Your task to perform on an android device: Go to location settings Image 0: 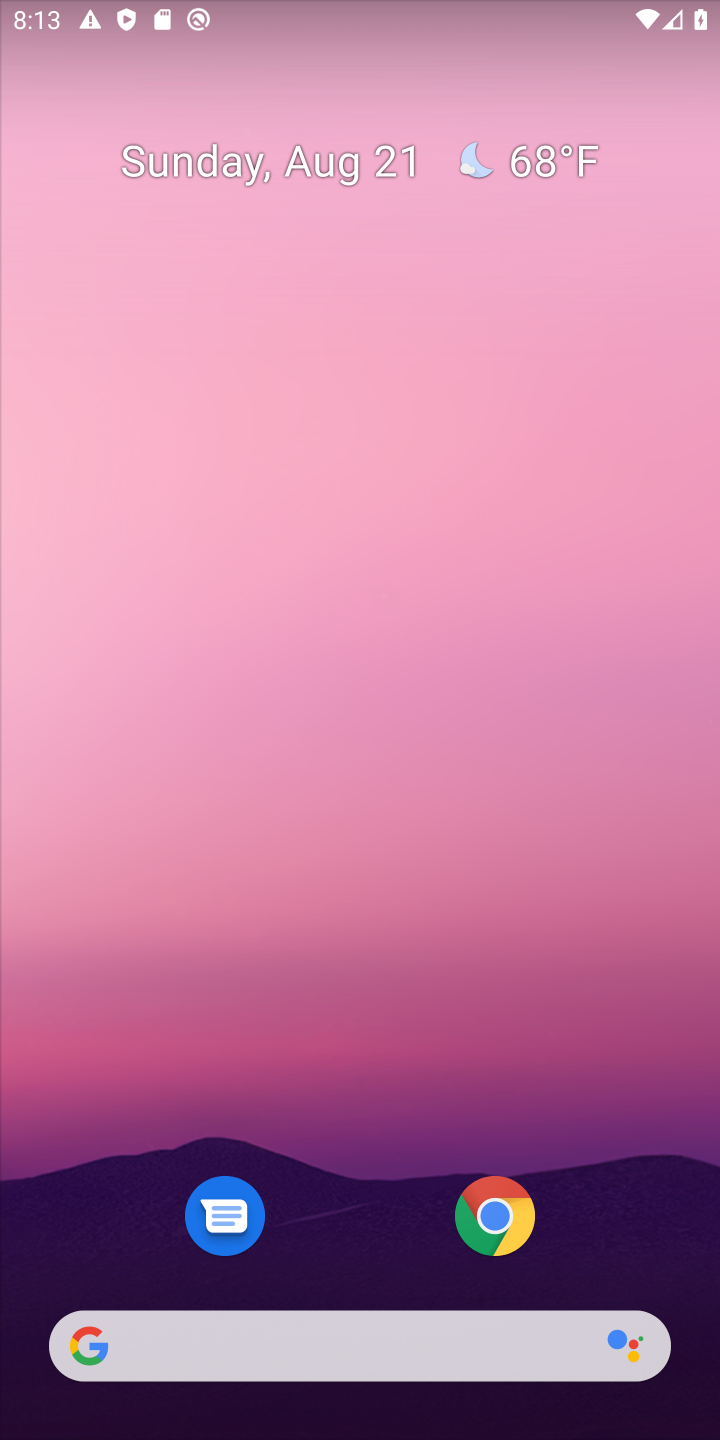
Step 0: drag from (415, 1105) to (577, 41)
Your task to perform on an android device: Go to location settings Image 1: 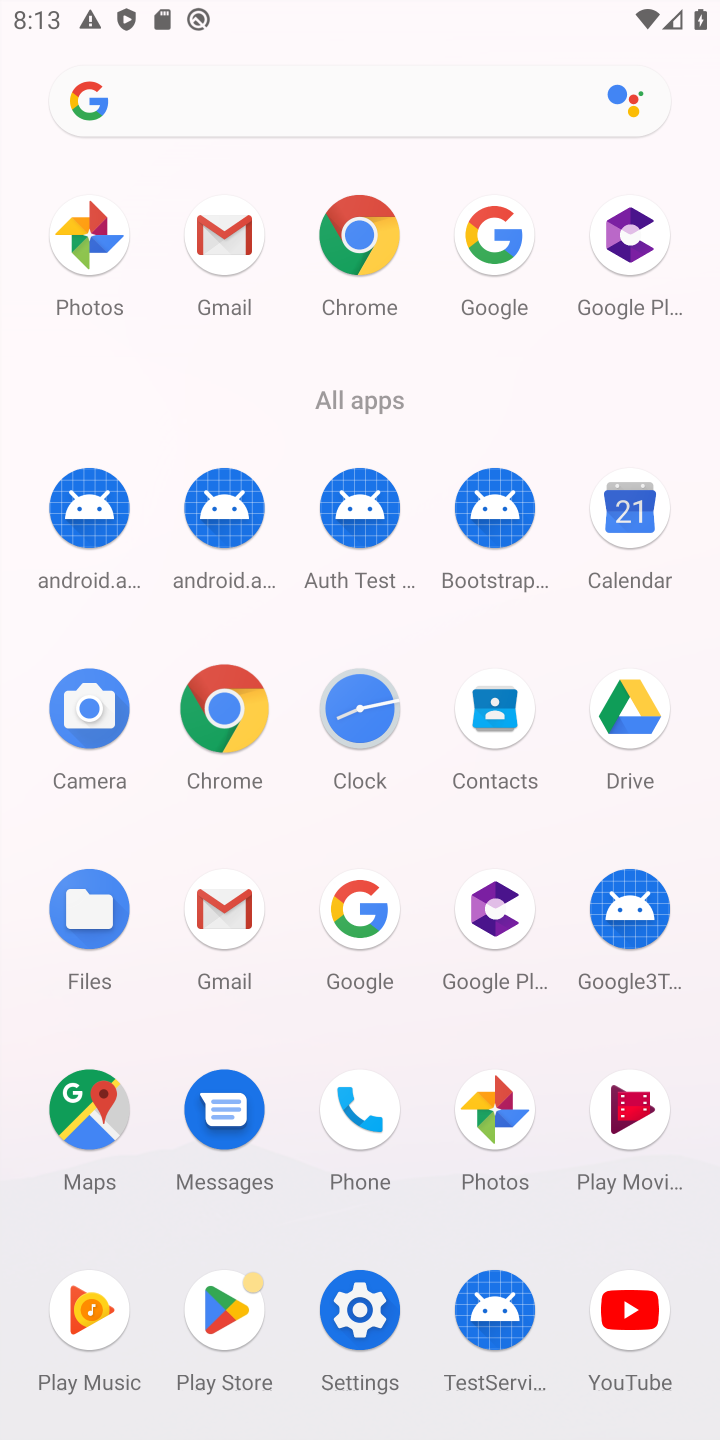
Step 1: click (372, 1316)
Your task to perform on an android device: Go to location settings Image 2: 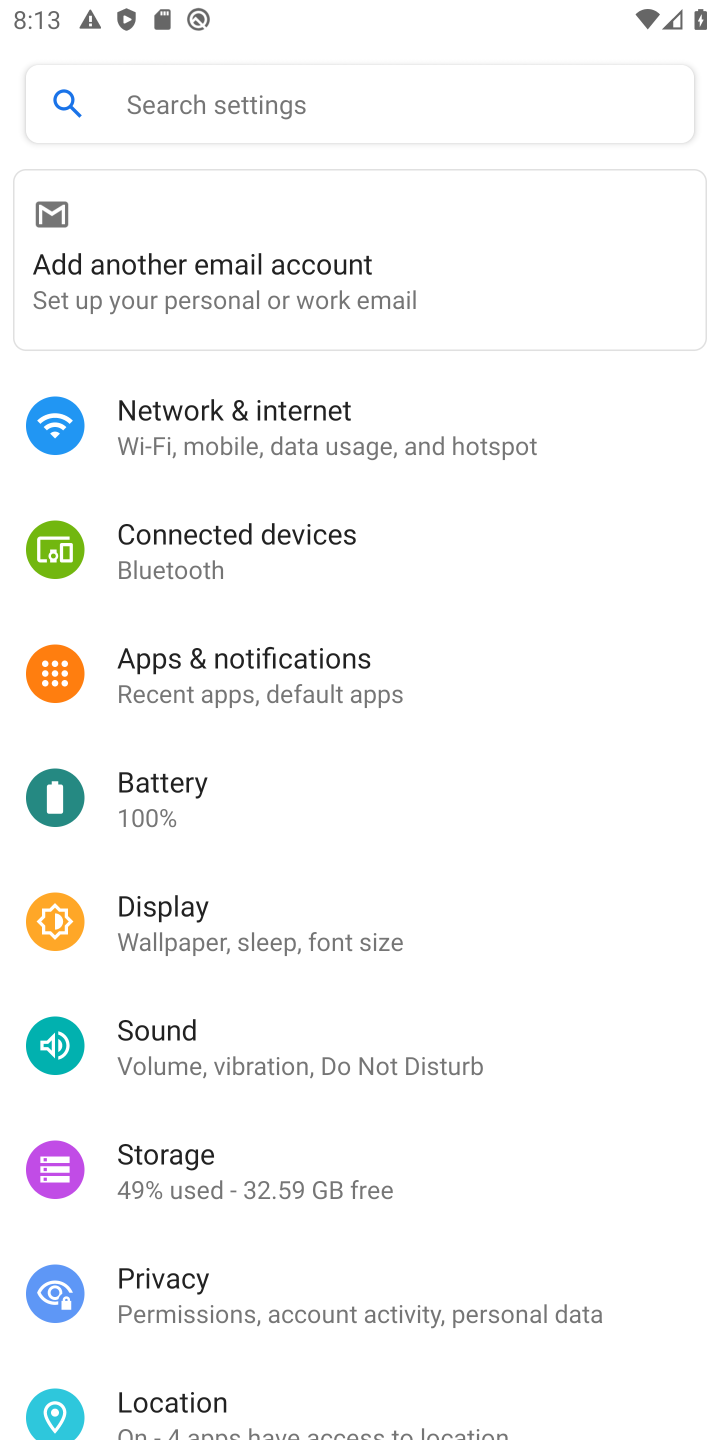
Step 2: drag from (368, 1043) to (471, 459)
Your task to perform on an android device: Go to location settings Image 3: 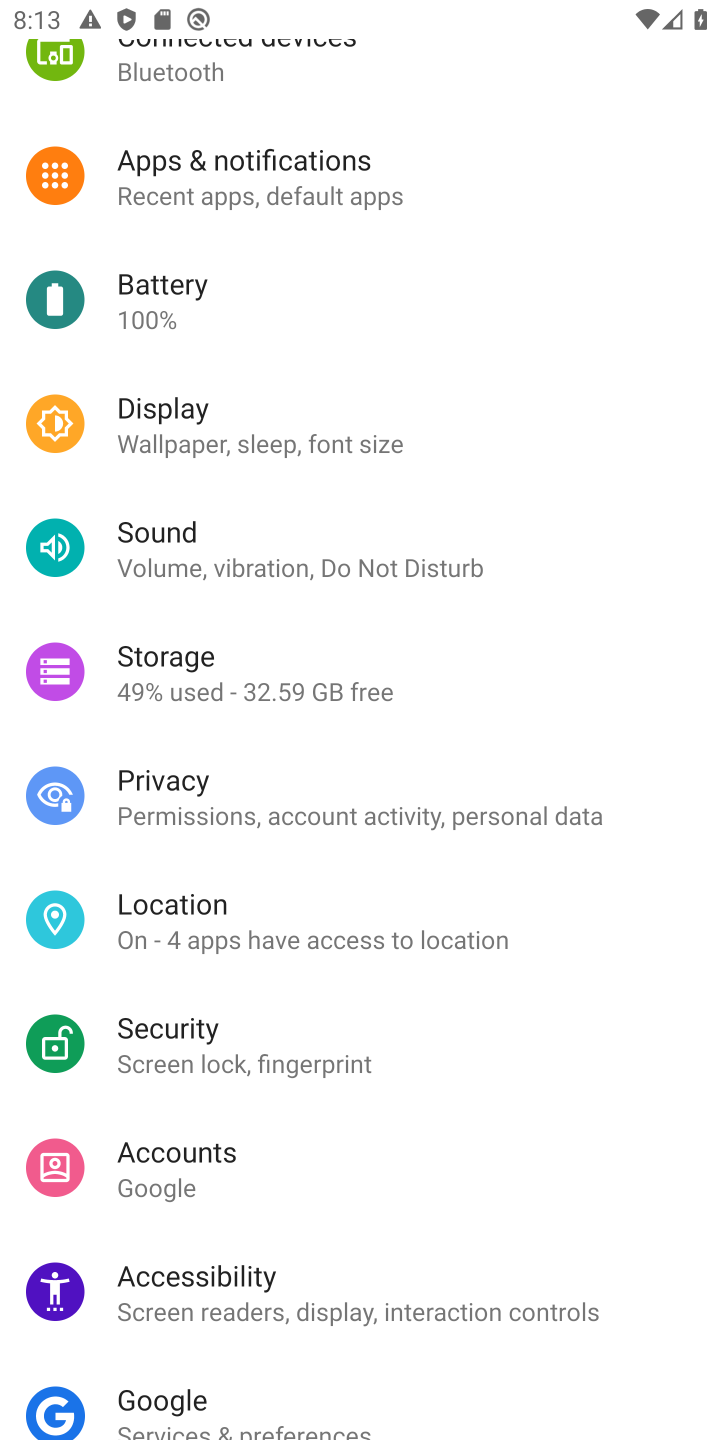
Step 3: click (235, 935)
Your task to perform on an android device: Go to location settings Image 4: 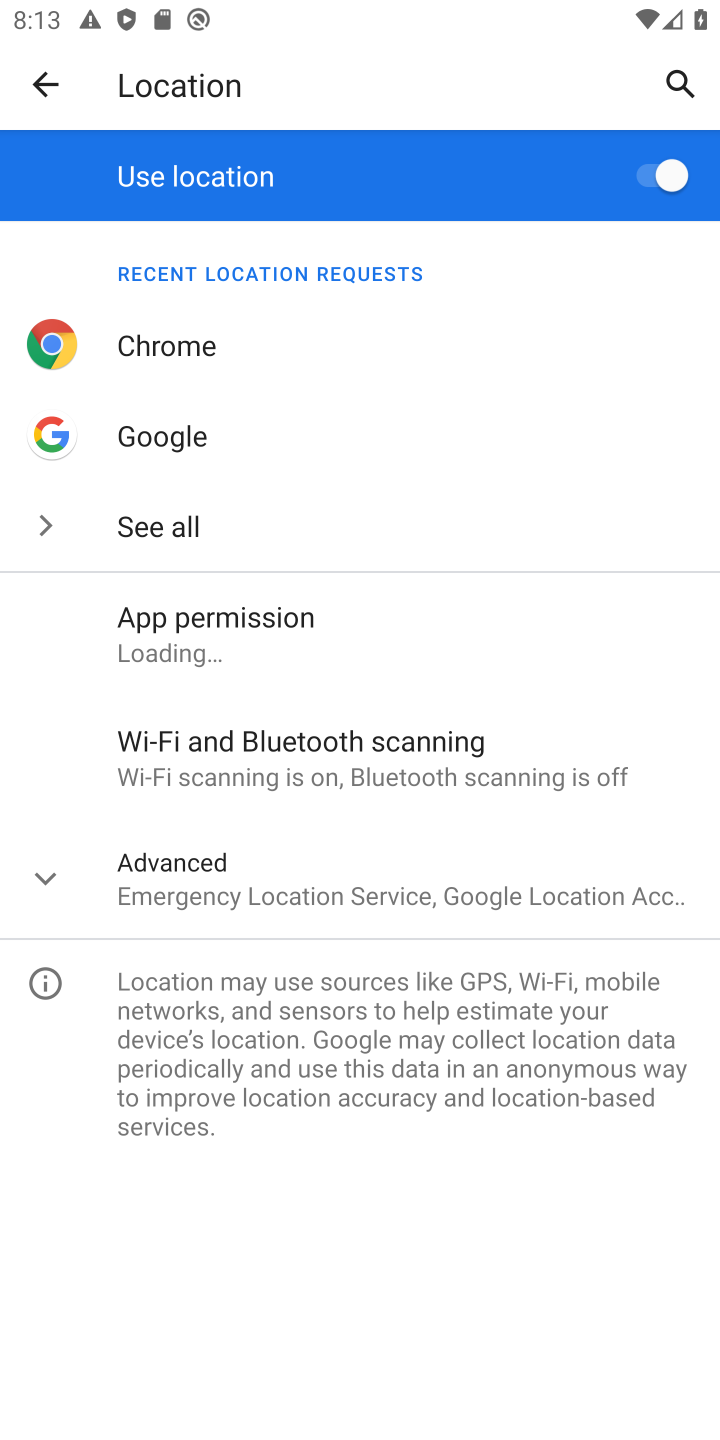
Step 4: task complete